Your task to perform on an android device: Open network settings Image 0: 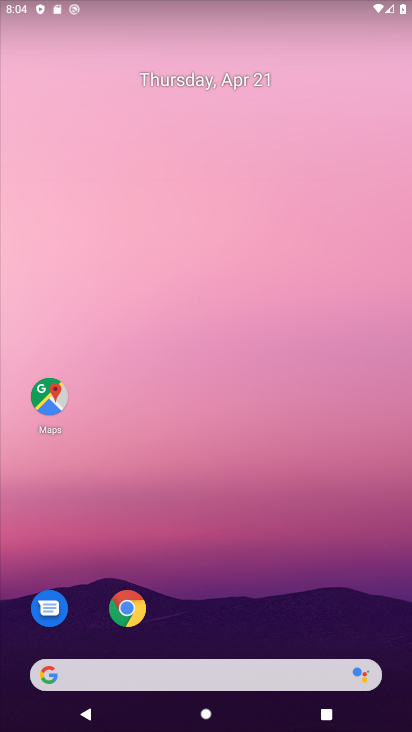
Step 0: drag from (239, 625) to (244, 178)
Your task to perform on an android device: Open network settings Image 1: 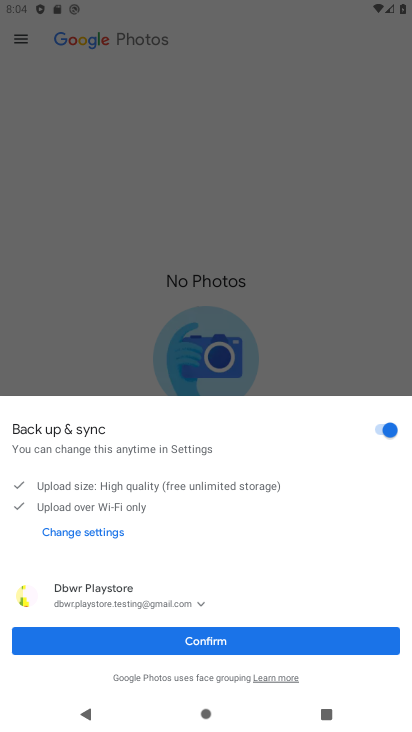
Step 1: press home button
Your task to perform on an android device: Open network settings Image 2: 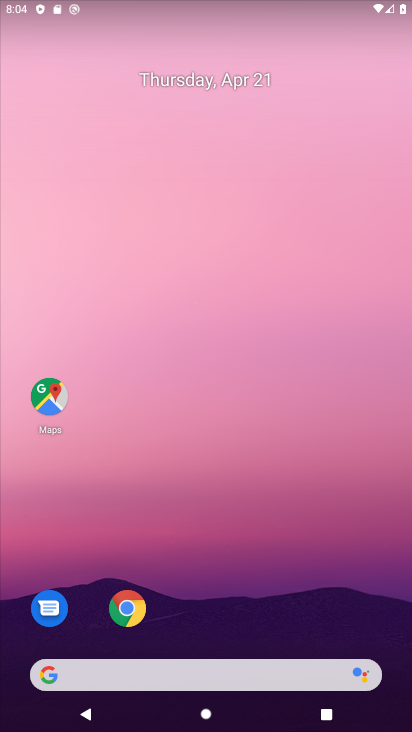
Step 2: drag from (211, 620) to (228, 90)
Your task to perform on an android device: Open network settings Image 3: 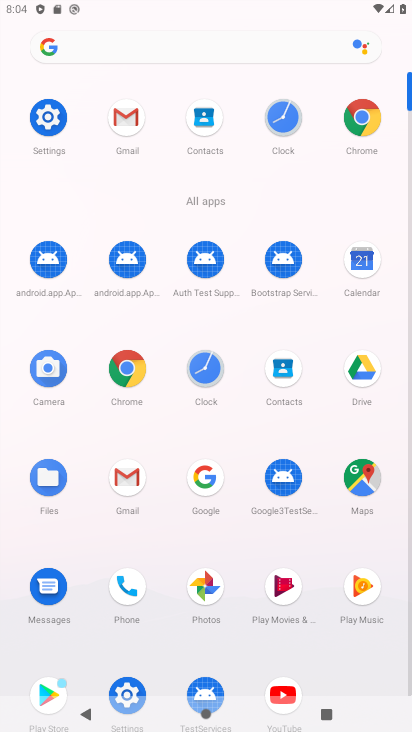
Step 3: click (48, 127)
Your task to perform on an android device: Open network settings Image 4: 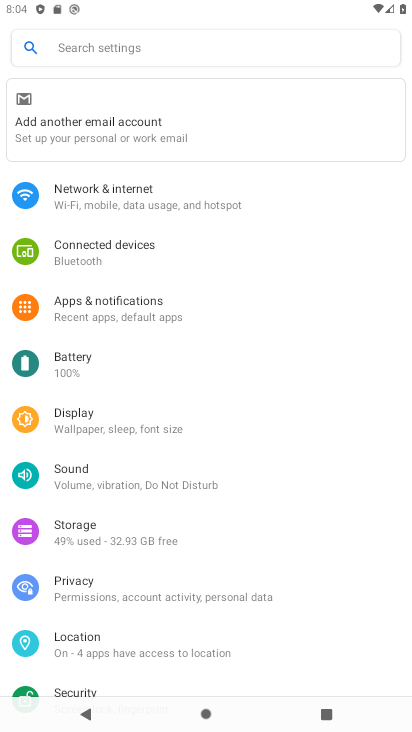
Step 4: click (162, 195)
Your task to perform on an android device: Open network settings Image 5: 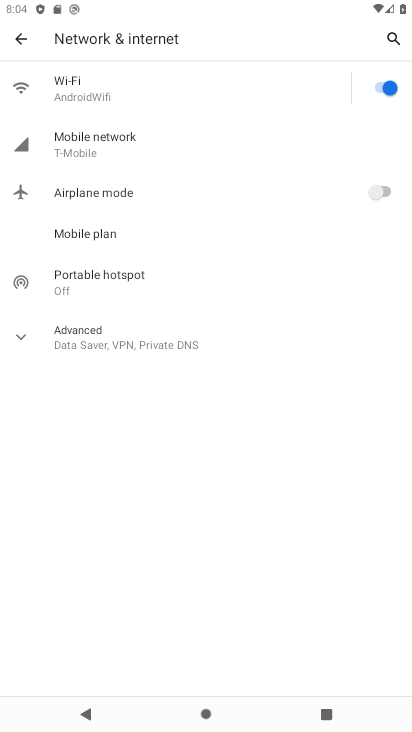
Step 5: task complete